Your task to perform on an android device: Go to network settings Image 0: 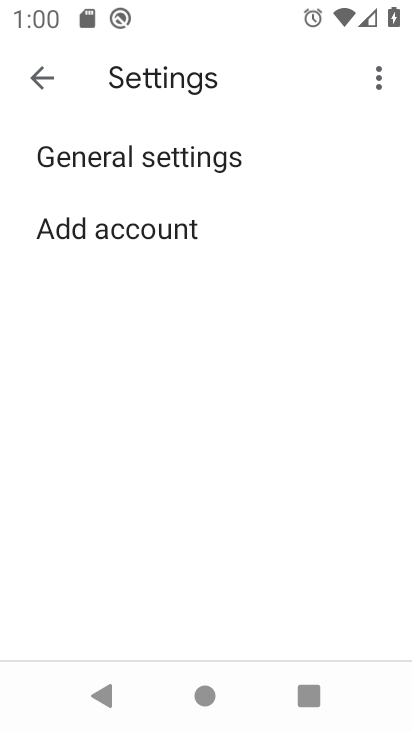
Step 0: press home button
Your task to perform on an android device: Go to network settings Image 1: 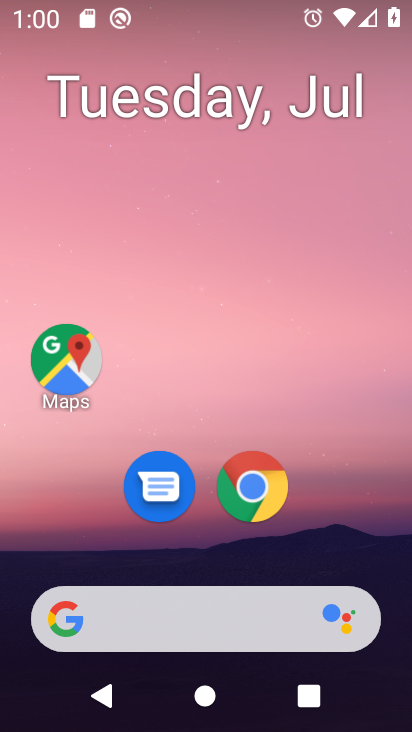
Step 1: drag from (370, 521) to (375, 136)
Your task to perform on an android device: Go to network settings Image 2: 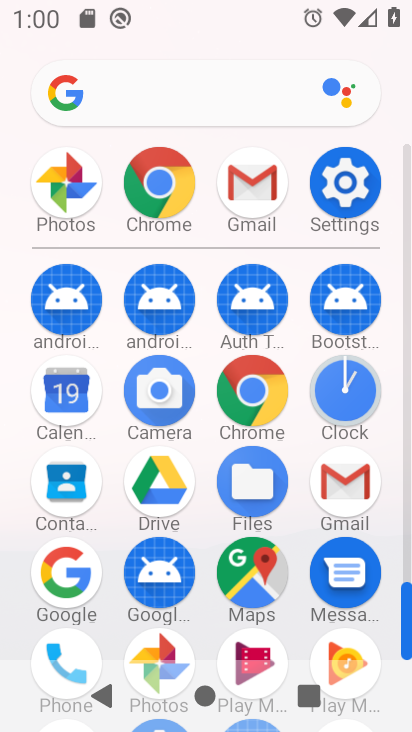
Step 2: click (354, 186)
Your task to perform on an android device: Go to network settings Image 3: 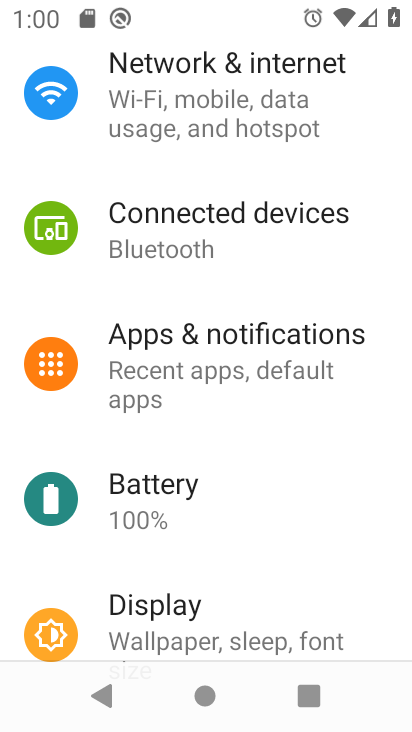
Step 3: drag from (366, 266) to (365, 432)
Your task to perform on an android device: Go to network settings Image 4: 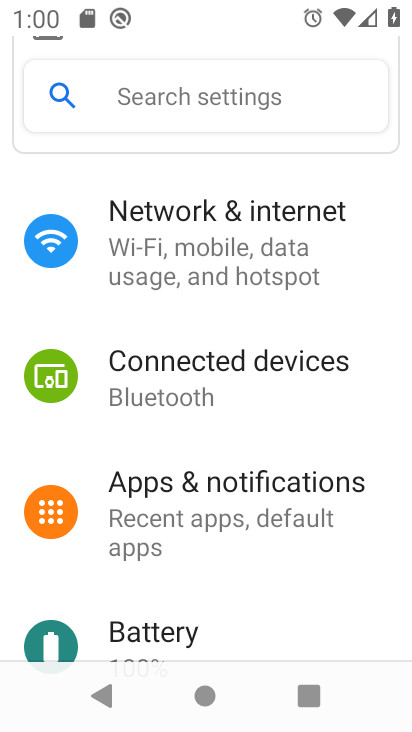
Step 4: drag from (369, 286) to (369, 433)
Your task to perform on an android device: Go to network settings Image 5: 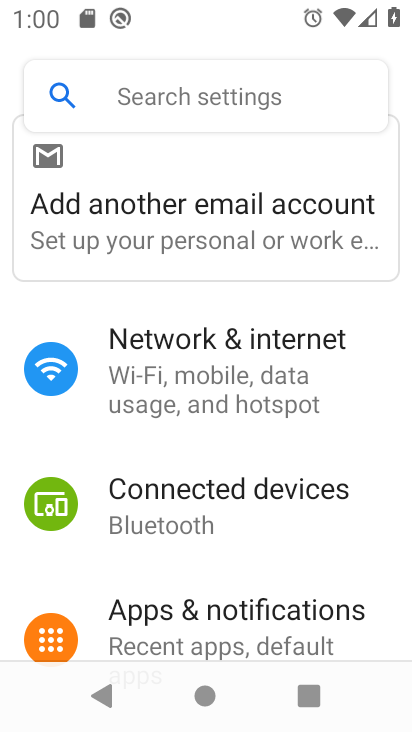
Step 5: drag from (367, 333) to (369, 478)
Your task to perform on an android device: Go to network settings Image 6: 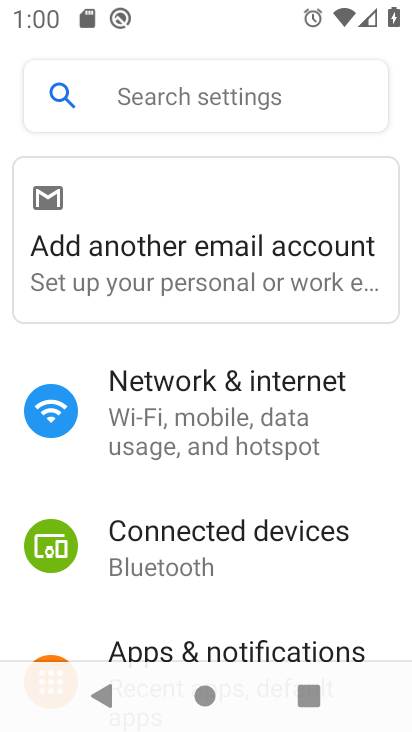
Step 6: click (271, 436)
Your task to perform on an android device: Go to network settings Image 7: 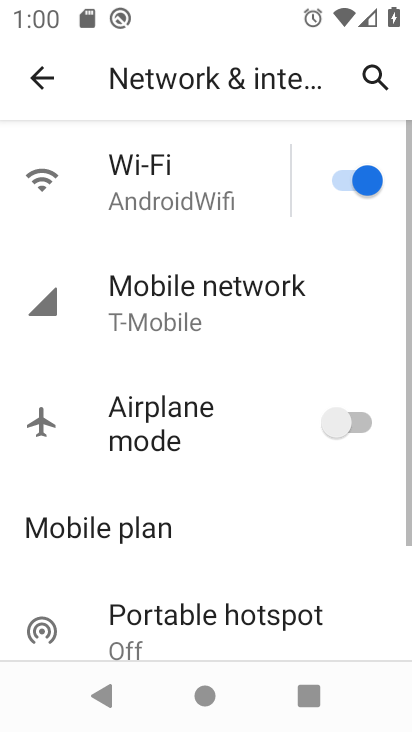
Step 7: task complete